Your task to perform on an android device: visit the assistant section in the google photos Image 0: 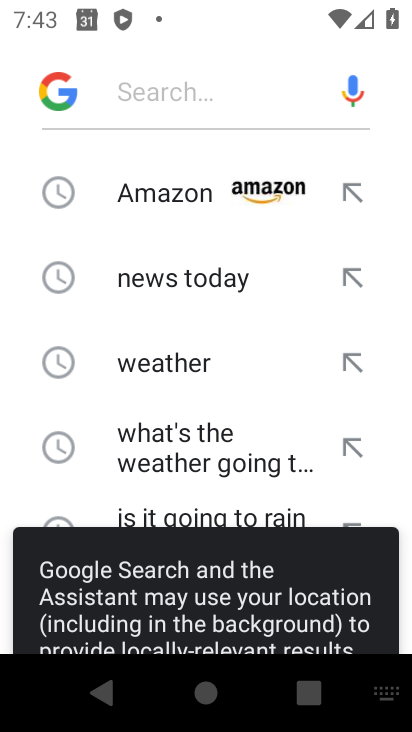
Step 0: press home button
Your task to perform on an android device: visit the assistant section in the google photos Image 1: 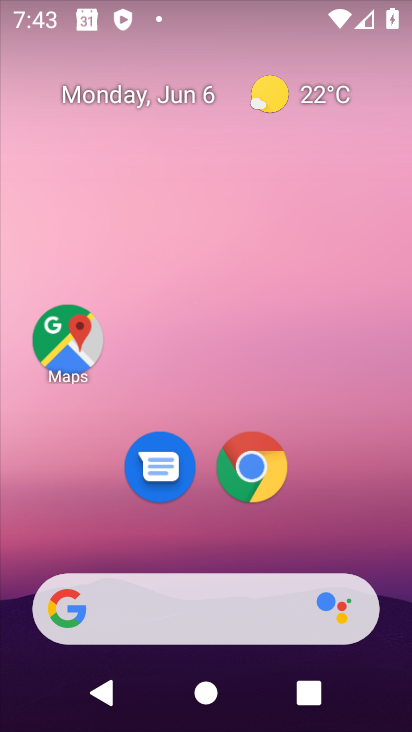
Step 1: drag from (376, 515) to (349, 145)
Your task to perform on an android device: visit the assistant section in the google photos Image 2: 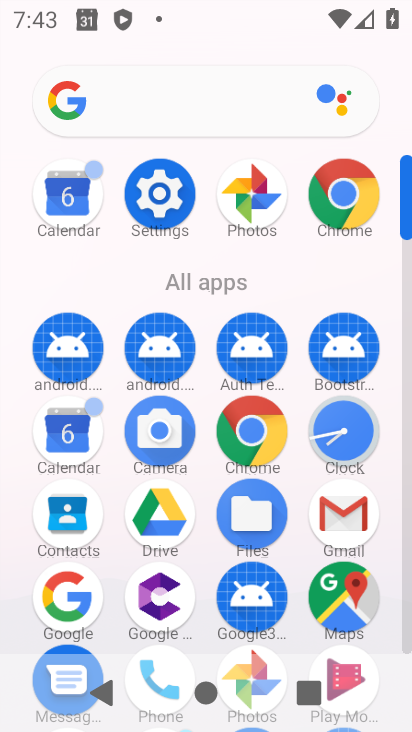
Step 2: click (262, 217)
Your task to perform on an android device: visit the assistant section in the google photos Image 3: 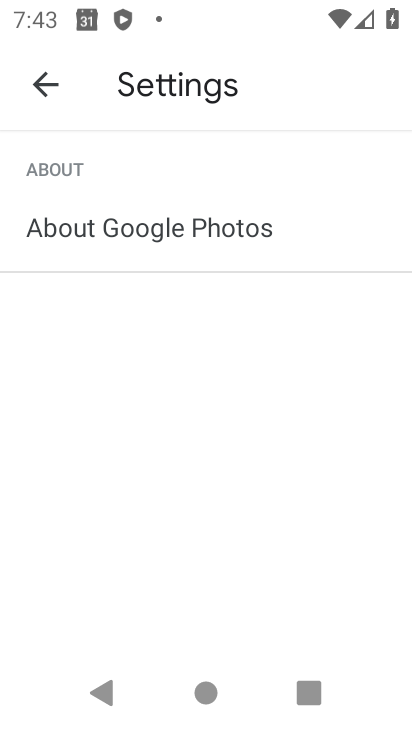
Step 3: click (56, 89)
Your task to perform on an android device: visit the assistant section in the google photos Image 4: 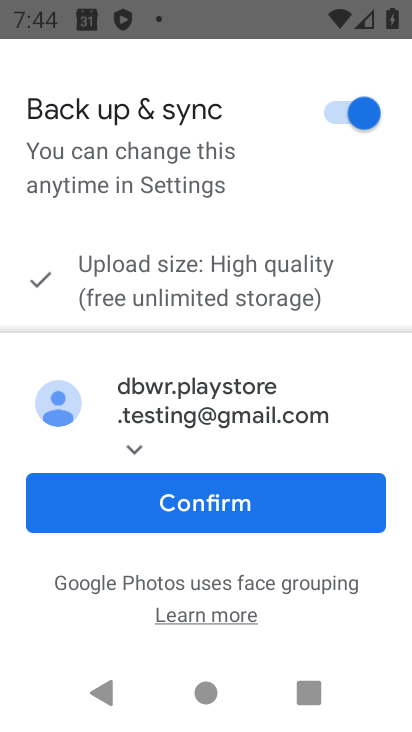
Step 4: click (198, 504)
Your task to perform on an android device: visit the assistant section in the google photos Image 5: 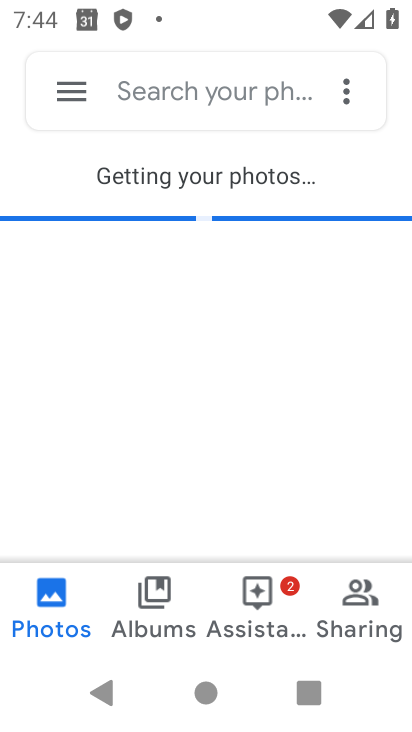
Step 5: click (257, 620)
Your task to perform on an android device: visit the assistant section in the google photos Image 6: 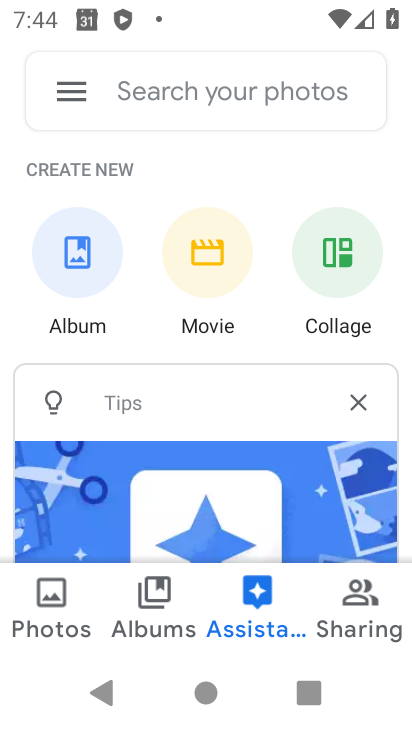
Step 6: task complete